Your task to perform on an android device: Open location settings Image 0: 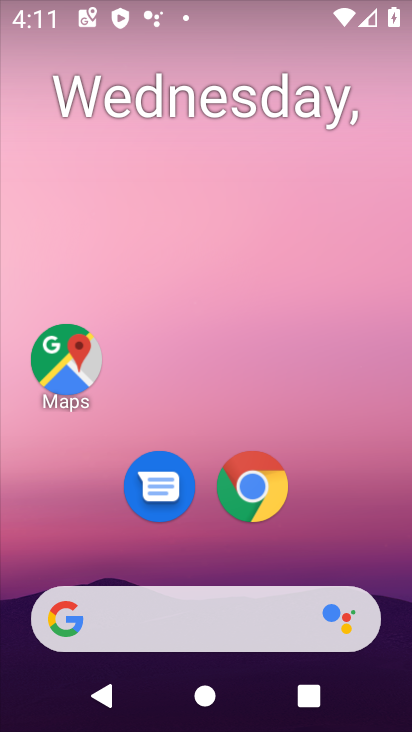
Step 0: drag from (212, 595) to (212, 240)
Your task to perform on an android device: Open location settings Image 1: 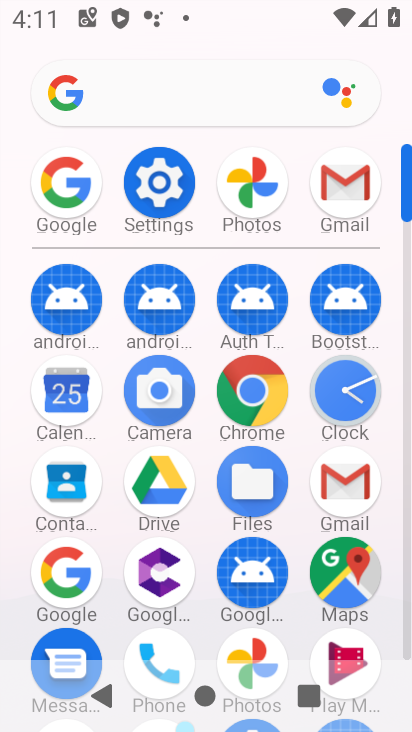
Step 1: click (159, 171)
Your task to perform on an android device: Open location settings Image 2: 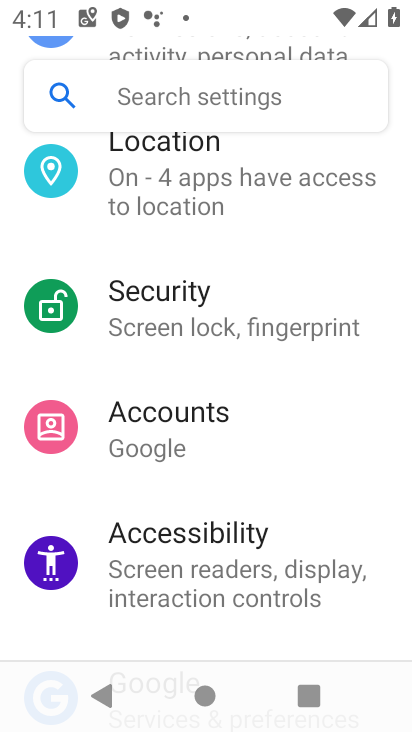
Step 2: click (176, 172)
Your task to perform on an android device: Open location settings Image 3: 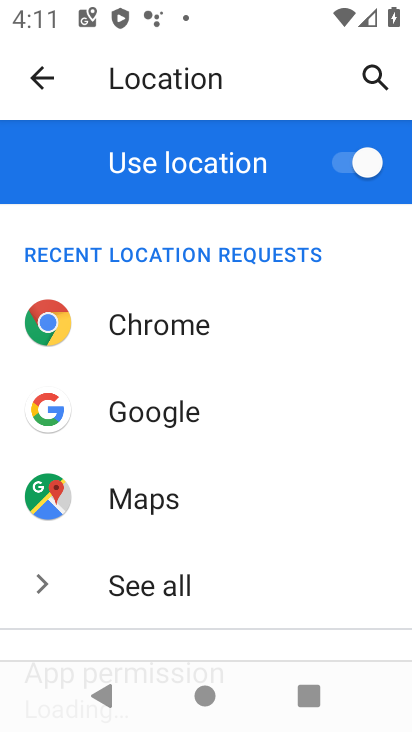
Step 3: drag from (196, 602) to (209, 216)
Your task to perform on an android device: Open location settings Image 4: 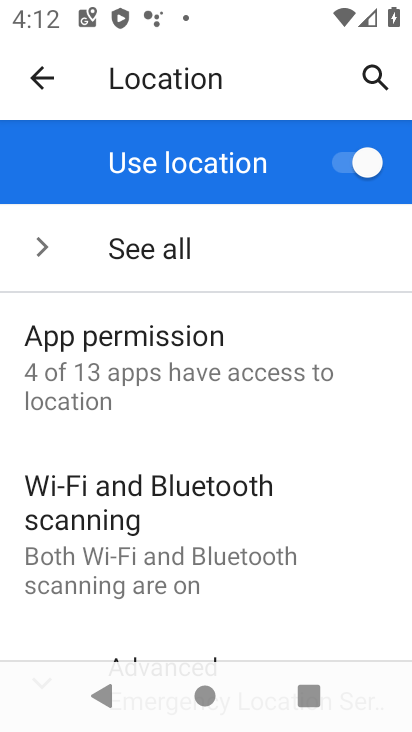
Step 4: drag from (221, 628) to (221, 308)
Your task to perform on an android device: Open location settings Image 5: 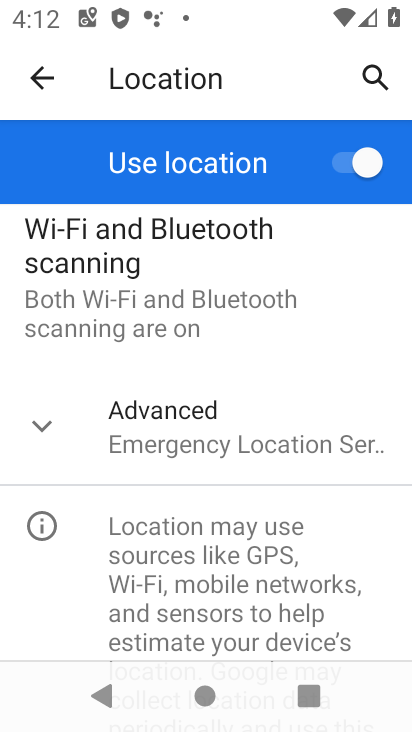
Step 5: click (185, 447)
Your task to perform on an android device: Open location settings Image 6: 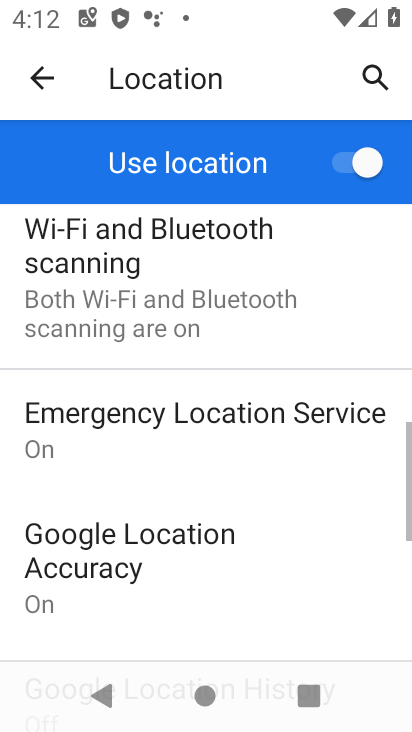
Step 6: task complete